Your task to perform on an android device: read, delete, or share a saved page in the chrome app Image 0: 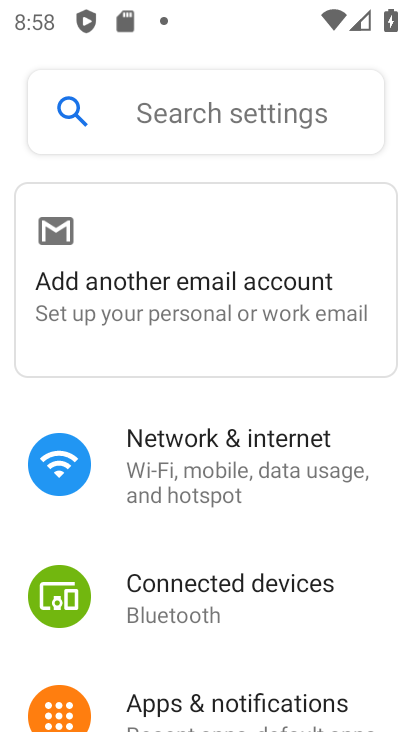
Step 0: press home button
Your task to perform on an android device: read, delete, or share a saved page in the chrome app Image 1: 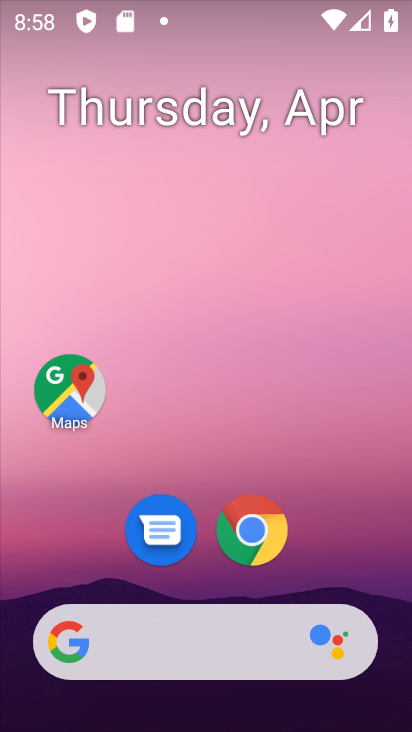
Step 1: drag from (362, 567) to (204, 41)
Your task to perform on an android device: read, delete, or share a saved page in the chrome app Image 2: 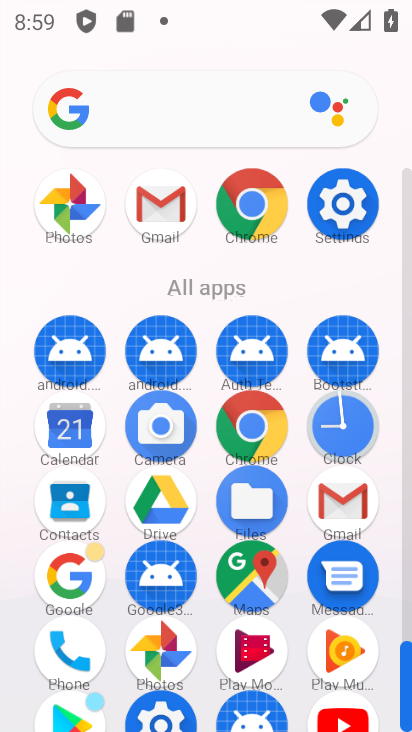
Step 2: click (254, 412)
Your task to perform on an android device: read, delete, or share a saved page in the chrome app Image 3: 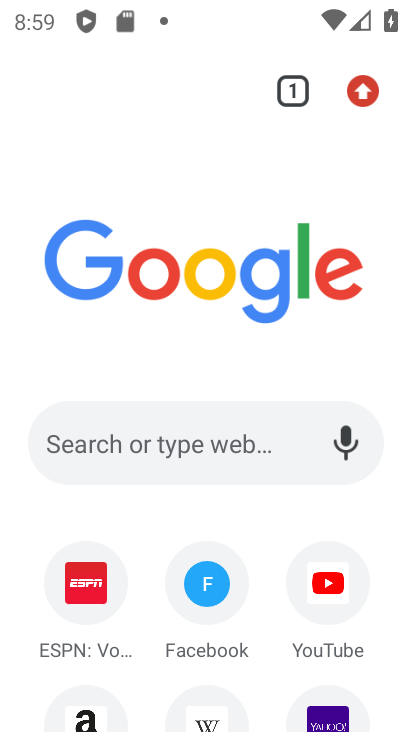
Step 3: task complete